Your task to perform on an android device: See recent photos Image 0: 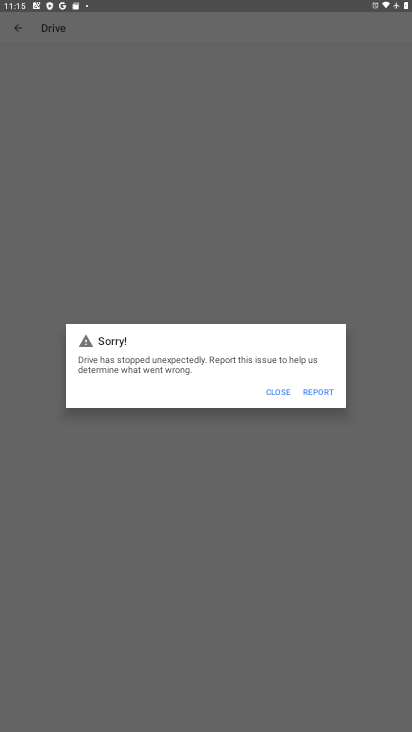
Step 0: click (288, 398)
Your task to perform on an android device: See recent photos Image 1: 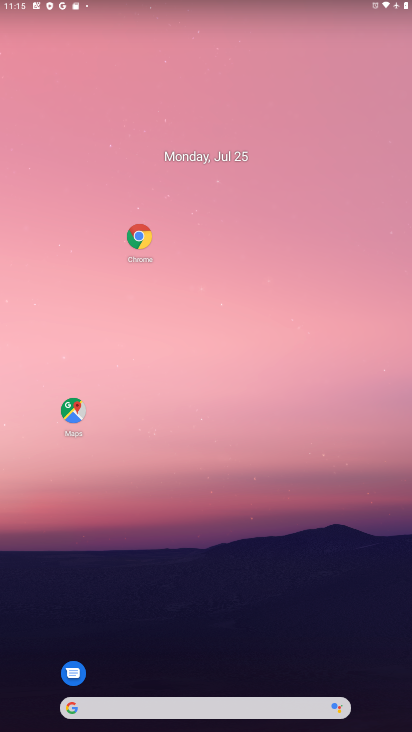
Step 1: drag from (186, 638) to (240, 88)
Your task to perform on an android device: See recent photos Image 2: 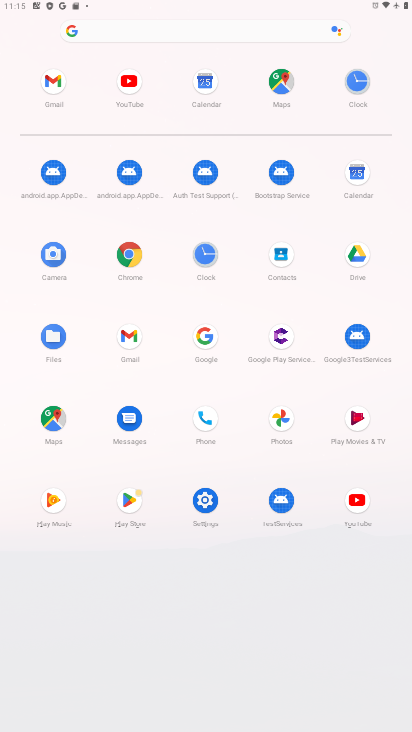
Step 2: click (297, 409)
Your task to perform on an android device: See recent photos Image 3: 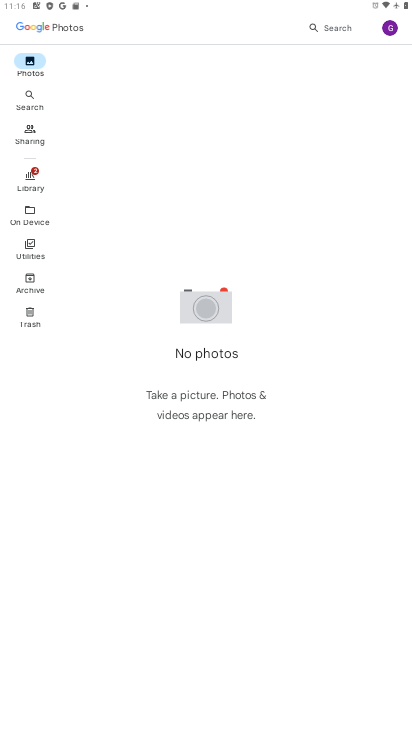
Step 3: task complete